Your task to perform on an android device: Is it going to rain tomorrow? Image 0: 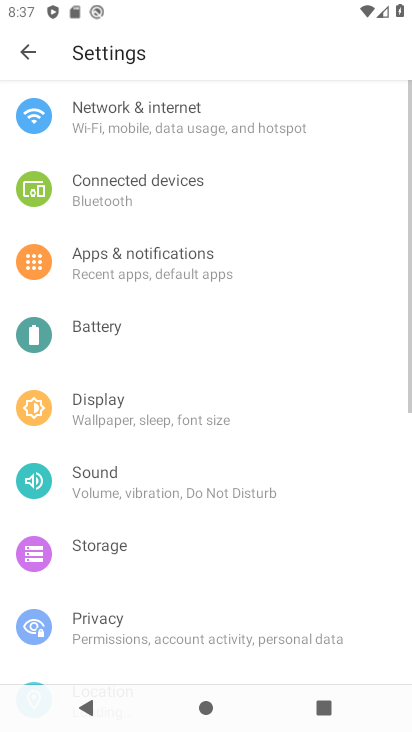
Step 0: press home button
Your task to perform on an android device: Is it going to rain tomorrow? Image 1: 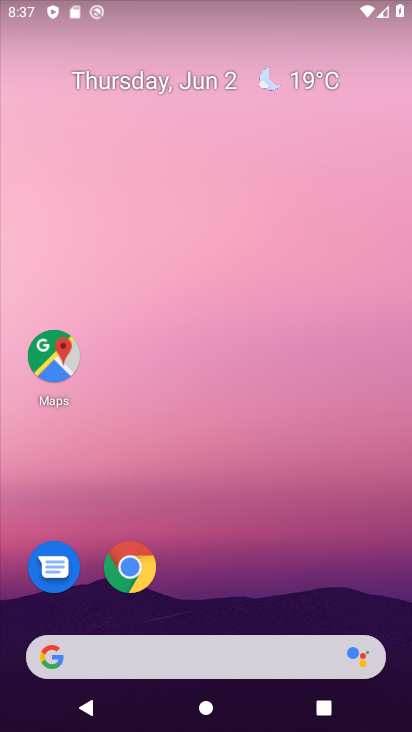
Step 1: click (275, 83)
Your task to perform on an android device: Is it going to rain tomorrow? Image 2: 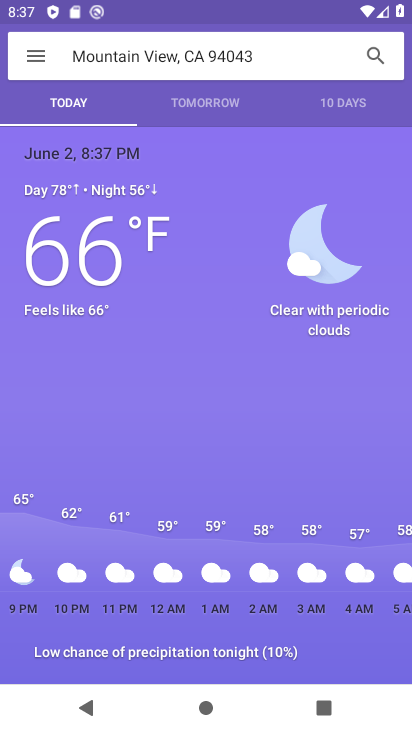
Step 2: click (194, 101)
Your task to perform on an android device: Is it going to rain tomorrow? Image 3: 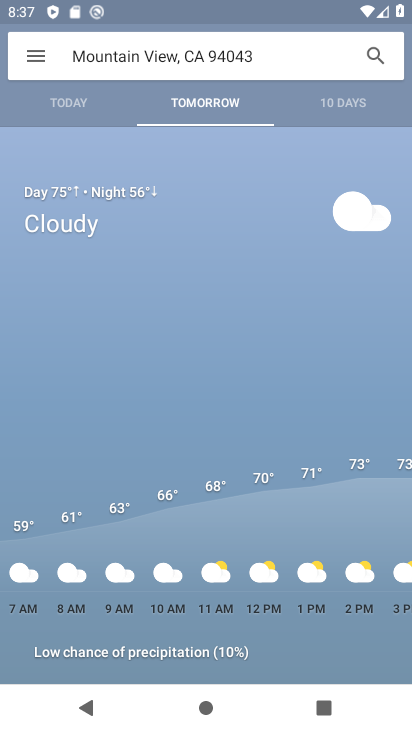
Step 3: task complete